Your task to perform on an android device: Open location settings Image 0: 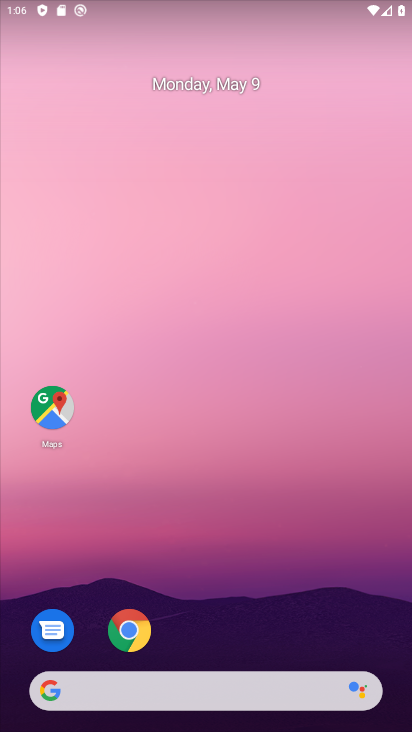
Step 0: drag from (302, 705) to (257, 481)
Your task to perform on an android device: Open location settings Image 1: 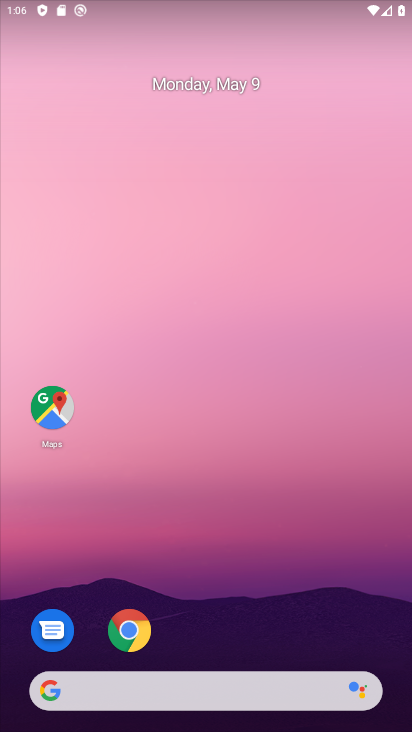
Step 1: drag from (296, 698) to (228, 345)
Your task to perform on an android device: Open location settings Image 2: 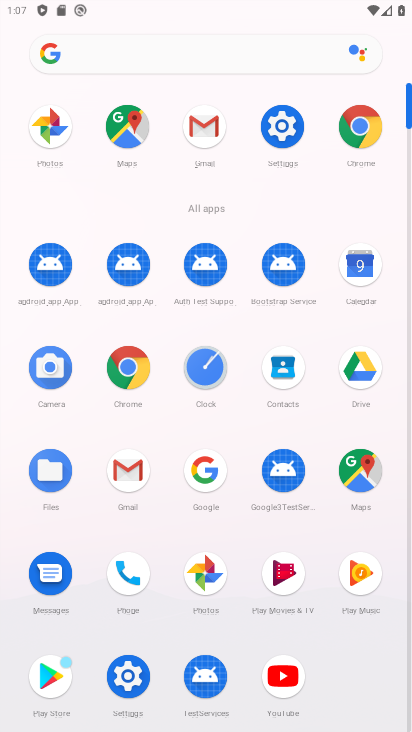
Step 2: click (282, 143)
Your task to perform on an android device: Open location settings Image 3: 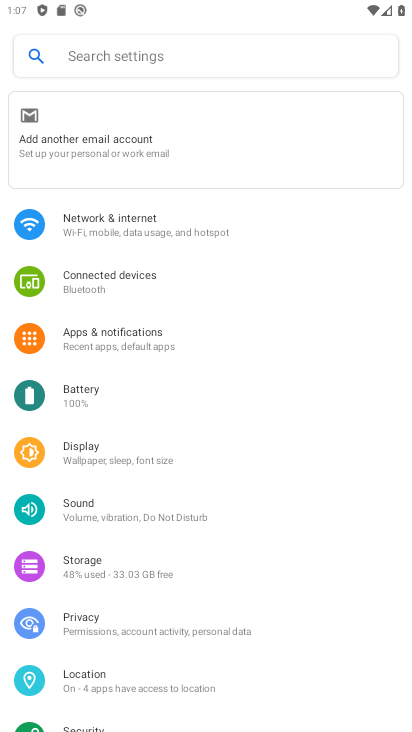
Step 3: click (156, 56)
Your task to perform on an android device: Open location settings Image 4: 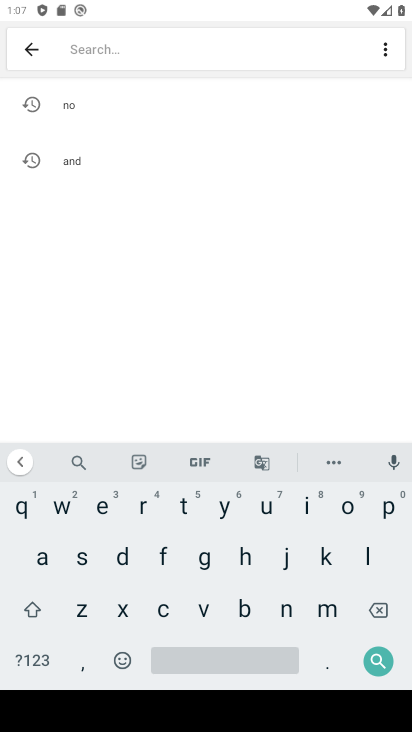
Step 4: click (364, 555)
Your task to perform on an android device: Open location settings Image 5: 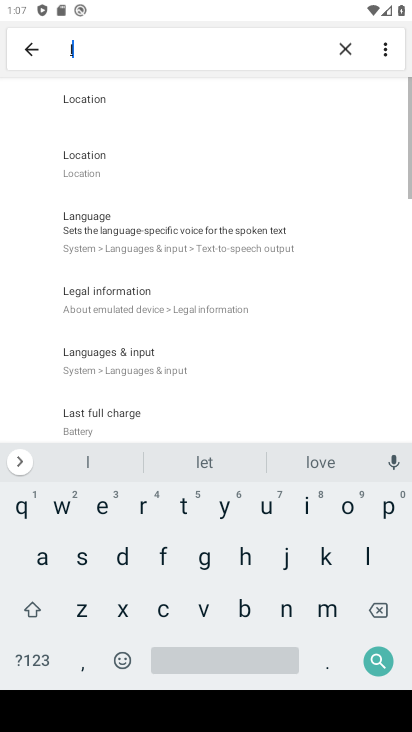
Step 5: click (344, 516)
Your task to perform on an android device: Open location settings Image 6: 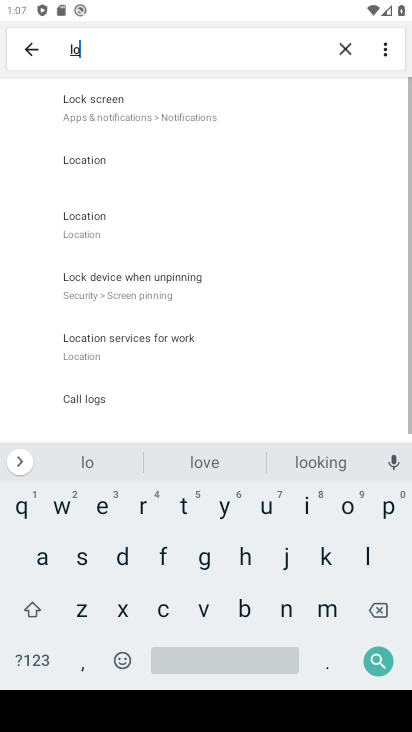
Step 6: click (159, 612)
Your task to perform on an android device: Open location settings Image 7: 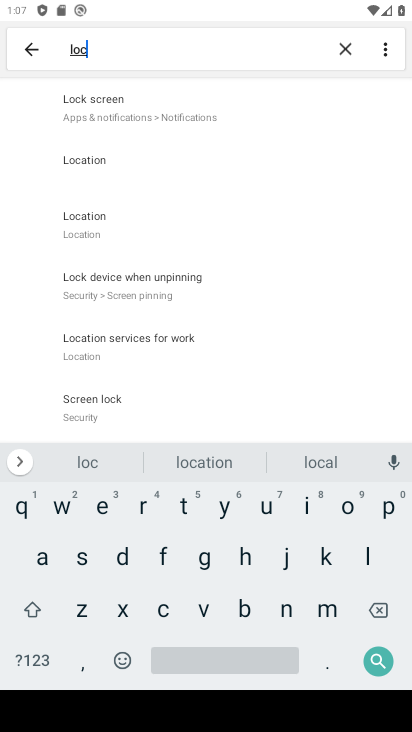
Step 7: click (93, 217)
Your task to perform on an android device: Open location settings Image 8: 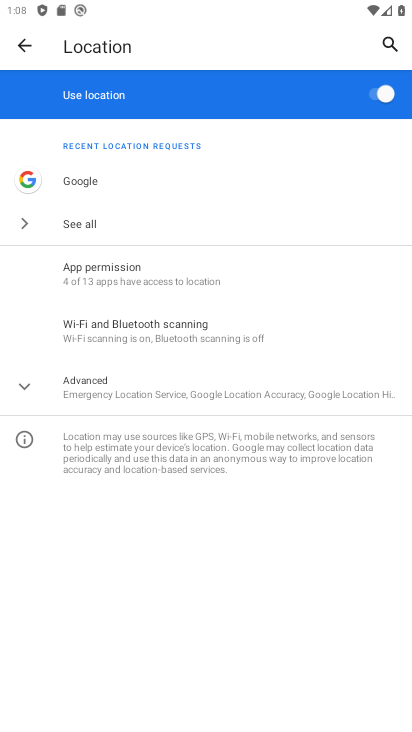
Step 8: task complete